Your task to perform on an android device: Go to Android settings Image 0: 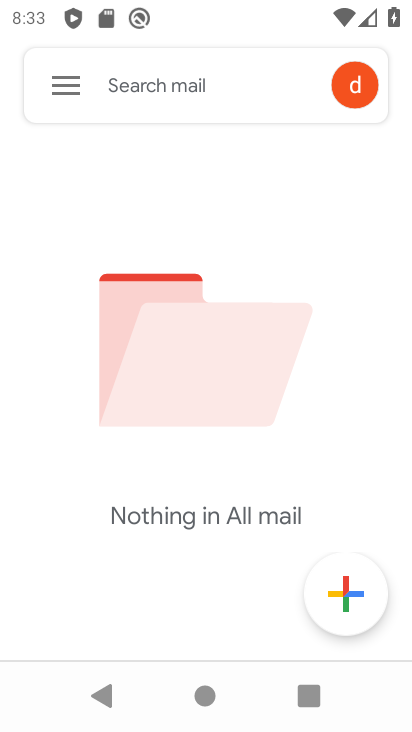
Step 0: press home button
Your task to perform on an android device: Go to Android settings Image 1: 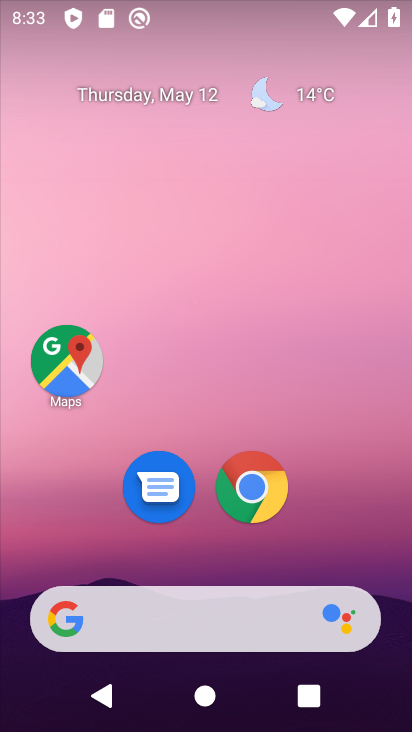
Step 1: drag from (27, 731) to (295, 222)
Your task to perform on an android device: Go to Android settings Image 2: 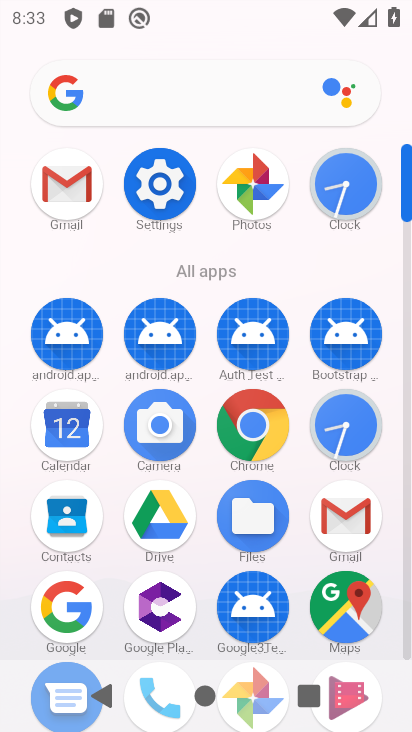
Step 2: click (134, 170)
Your task to perform on an android device: Go to Android settings Image 3: 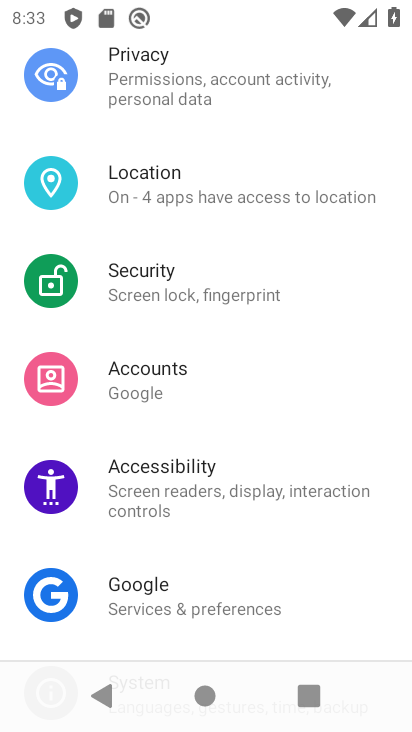
Step 3: drag from (101, 611) to (290, 191)
Your task to perform on an android device: Go to Android settings Image 4: 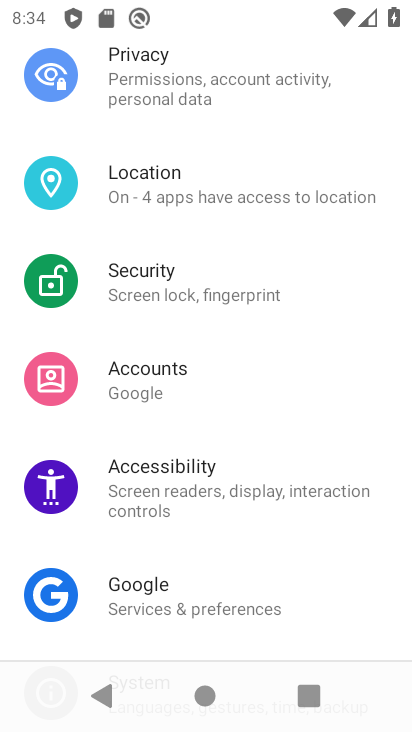
Step 4: drag from (57, 514) to (274, 234)
Your task to perform on an android device: Go to Android settings Image 5: 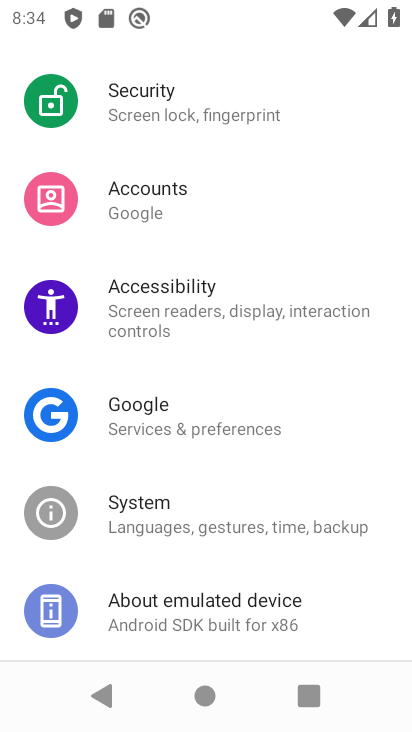
Step 5: click (124, 609)
Your task to perform on an android device: Go to Android settings Image 6: 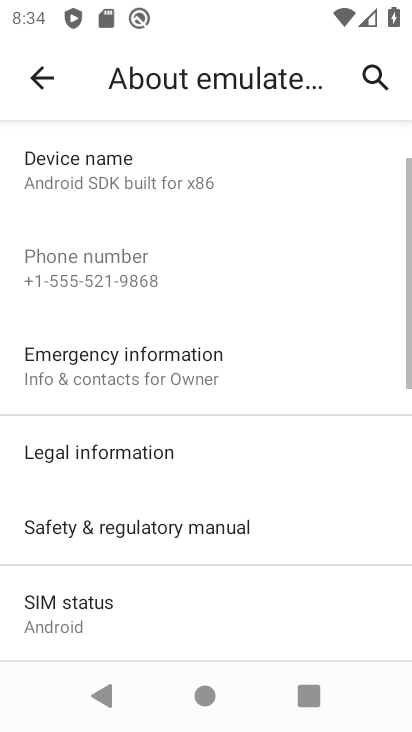
Step 6: task complete